Your task to perform on an android device: open chrome privacy settings Image 0: 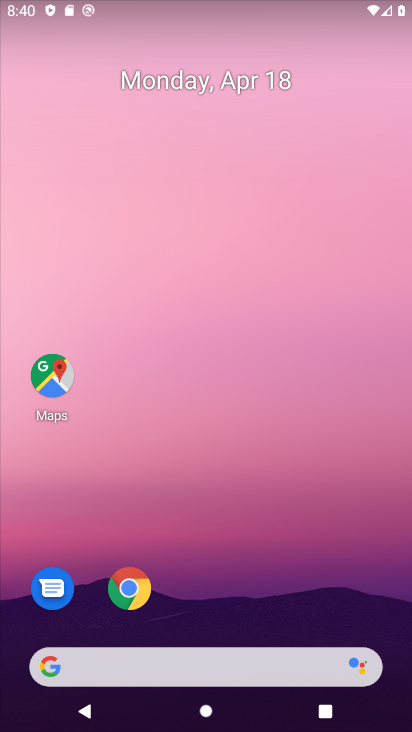
Step 0: drag from (298, 594) to (266, 129)
Your task to perform on an android device: open chrome privacy settings Image 1: 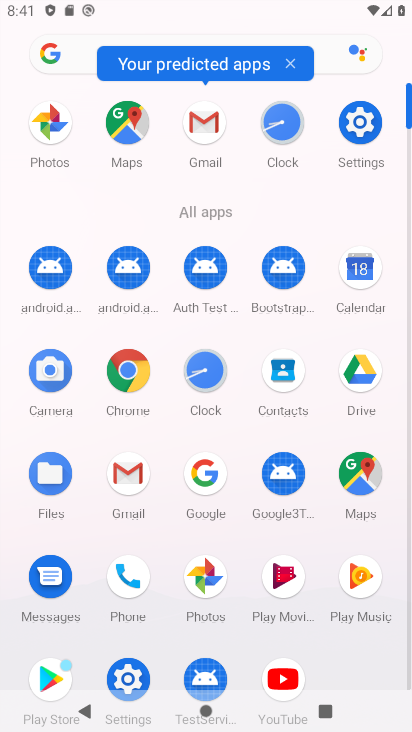
Step 1: click (116, 360)
Your task to perform on an android device: open chrome privacy settings Image 2: 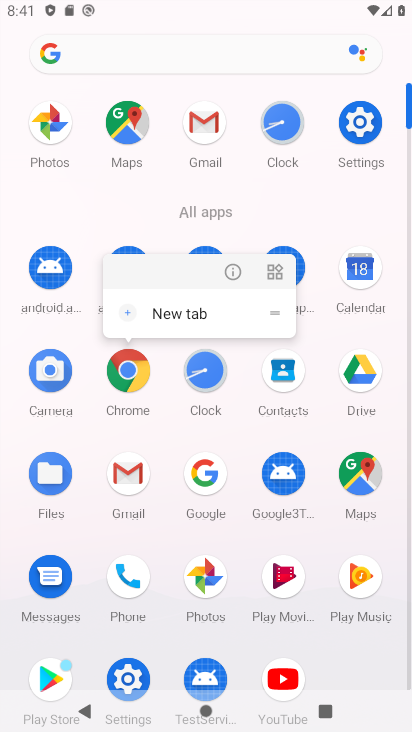
Step 2: click (121, 373)
Your task to perform on an android device: open chrome privacy settings Image 3: 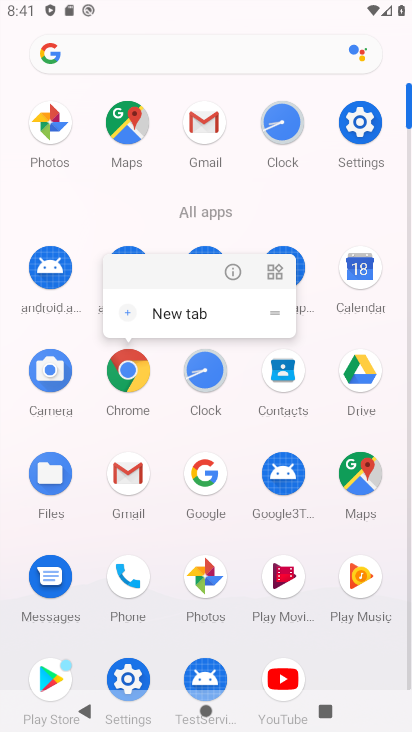
Step 3: click (158, 312)
Your task to perform on an android device: open chrome privacy settings Image 4: 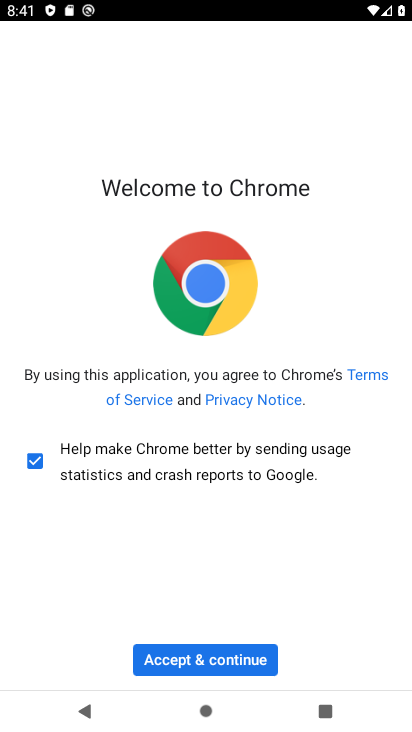
Step 4: click (242, 656)
Your task to perform on an android device: open chrome privacy settings Image 5: 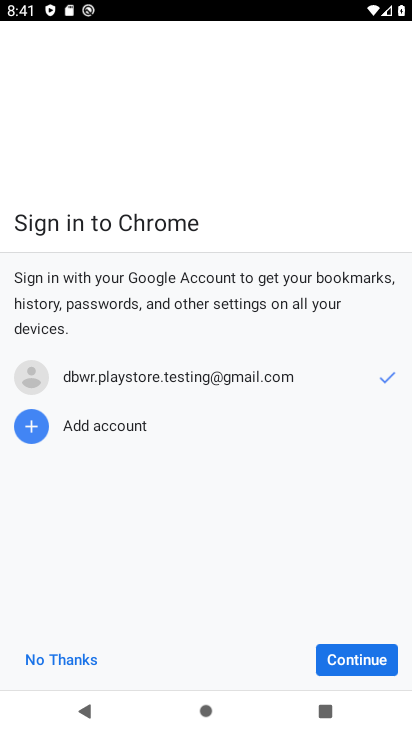
Step 5: click (59, 663)
Your task to perform on an android device: open chrome privacy settings Image 6: 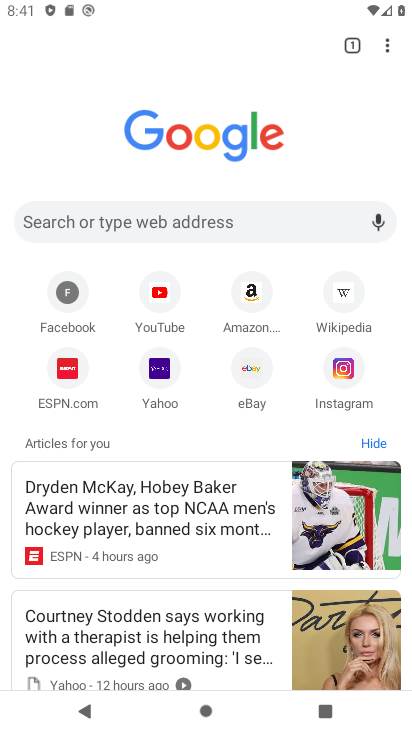
Step 6: click (383, 41)
Your task to perform on an android device: open chrome privacy settings Image 7: 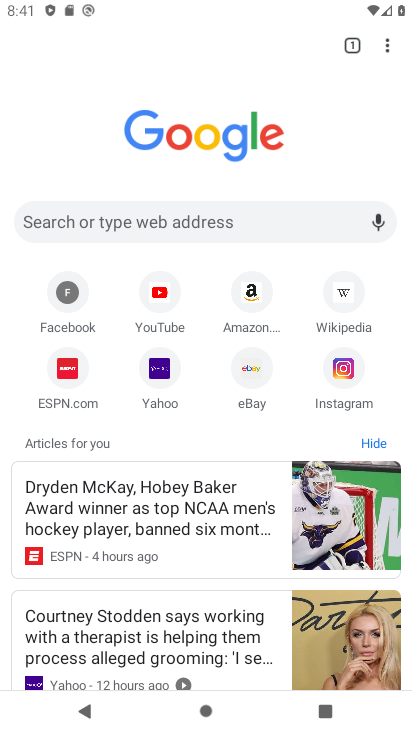
Step 7: click (380, 48)
Your task to perform on an android device: open chrome privacy settings Image 8: 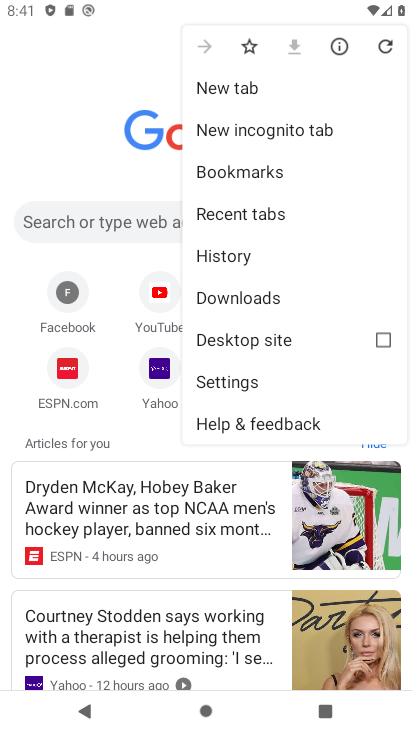
Step 8: drag from (301, 329) to (298, 180)
Your task to perform on an android device: open chrome privacy settings Image 9: 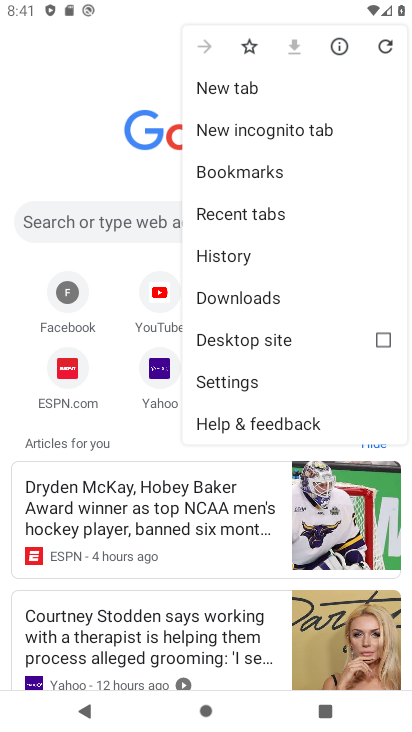
Step 9: click (250, 379)
Your task to perform on an android device: open chrome privacy settings Image 10: 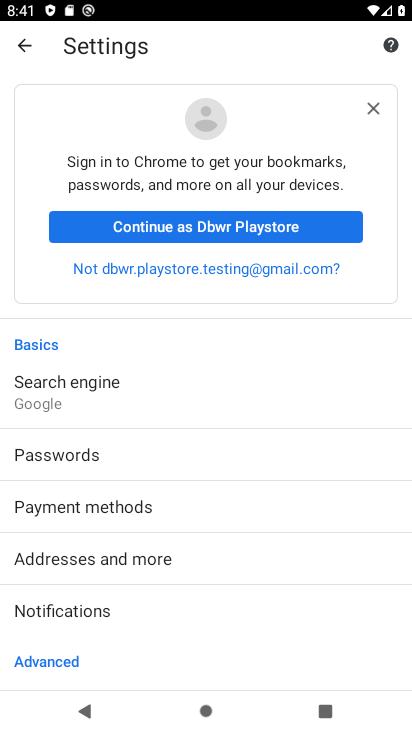
Step 10: drag from (145, 610) to (144, 286)
Your task to perform on an android device: open chrome privacy settings Image 11: 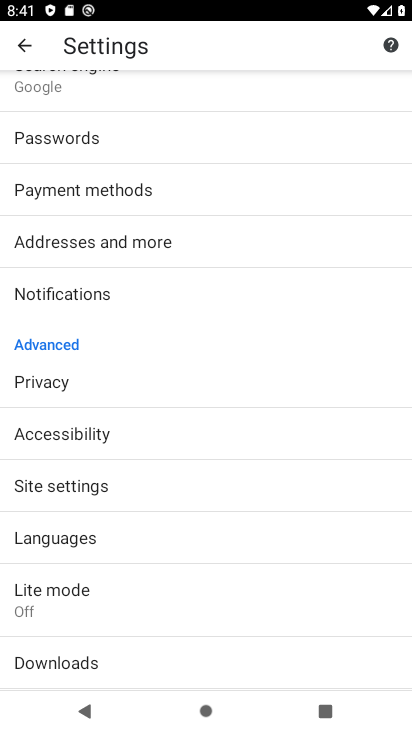
Step 11: click (94, 367)
Your task to perform on an android device: open chrome privacy settings Image 12: 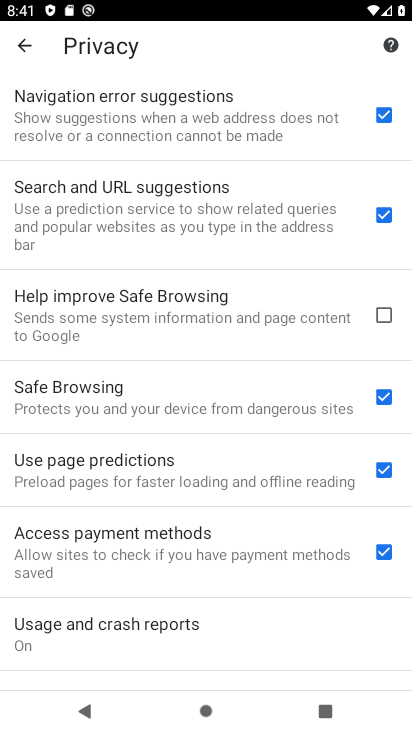
Step 12: task complete